Your task to perform on an android device: turn on javascript in the chrome app Image 0: 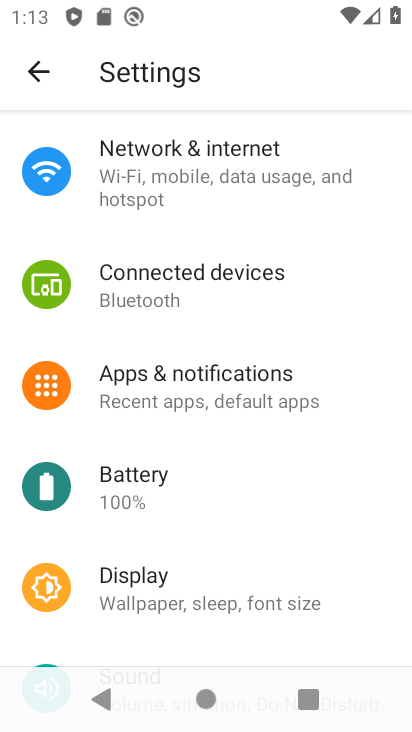
Step 0: press home button
Your task to perform on an android device: turn on javascript in the chrome app Image 1: 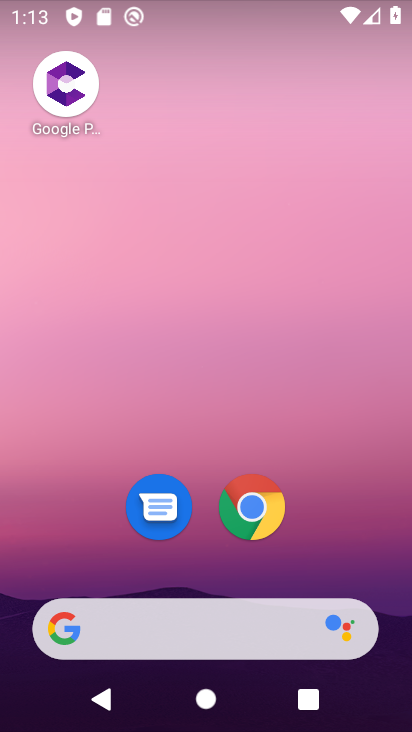
Step 1: click (277, 513)
Your task to perform on an android device: turn on javascript in the chrome app Image 2: 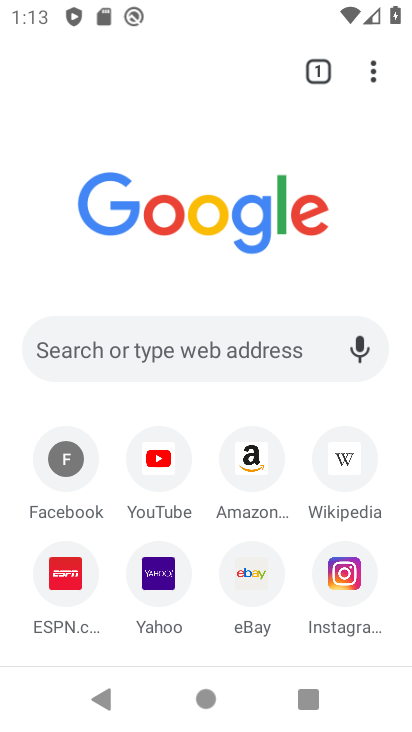
Step 2: click (371, 74)
Your task to perform on an android device: turn on javascript in the chrome app Image 3: 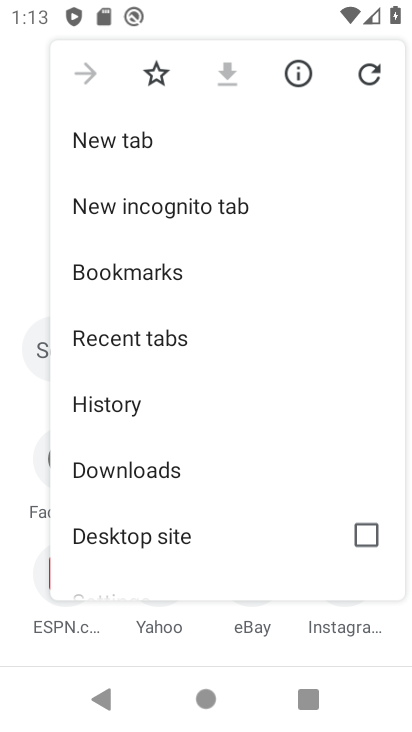
Step 3: drag from (214, 575) to (189, 155)
Your task to perform on an android device: turn on javascript in the chrome app Image 4: 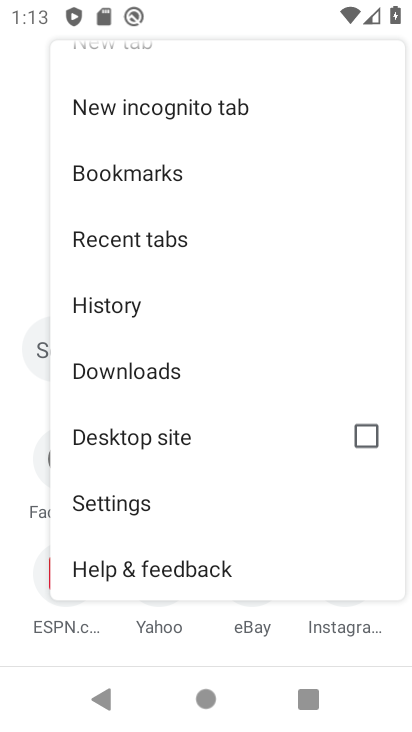
Step 4: click (220, 497)
Your task to perform on an android device: turn on javascript in the chrome app Image 5: 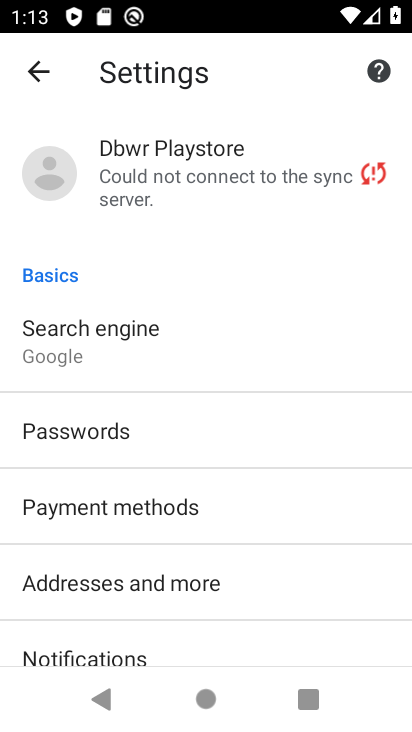
Step 5: drag from (254, 522) to (236, 196)
Your task to perform on an android device: turn on javascript in the chrome app Image 6: 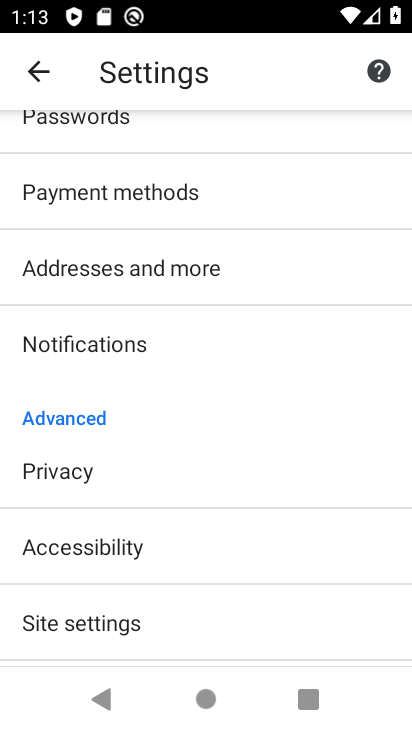
Step 6: click (231, 621)
Your task to perform on an android device: turn on javascript in the chrome app Image 7: 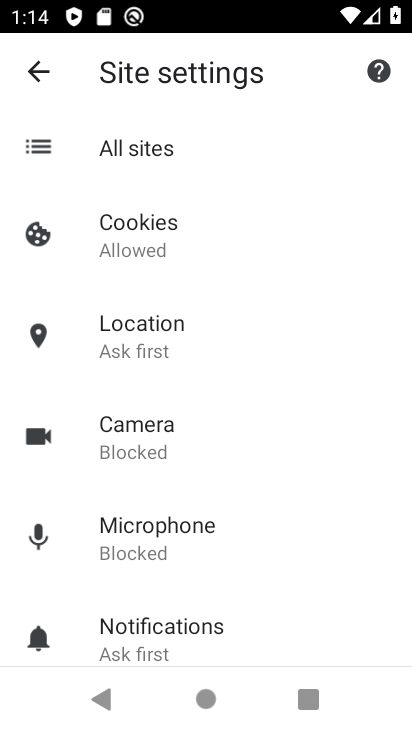
Step 7: drag from (250, 628) to (214, 241)
Your task to perform on an android device: turn on javascript in the chrome app Image 8: 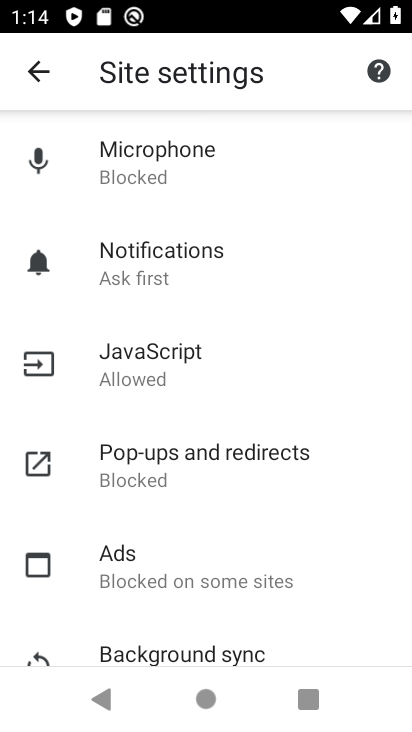
Step 8: click (237, 376)
Your task to perform on an android device: turn on javascript in the chrome app Image 9: 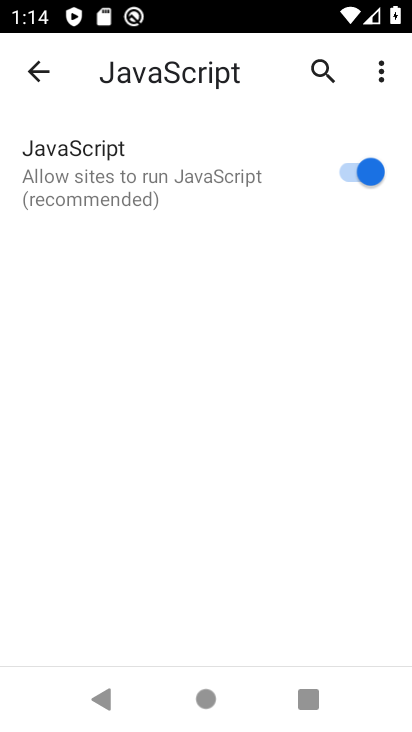
Step 9: task complete